Your task to perform on an android device: Open my contact list Image 0: 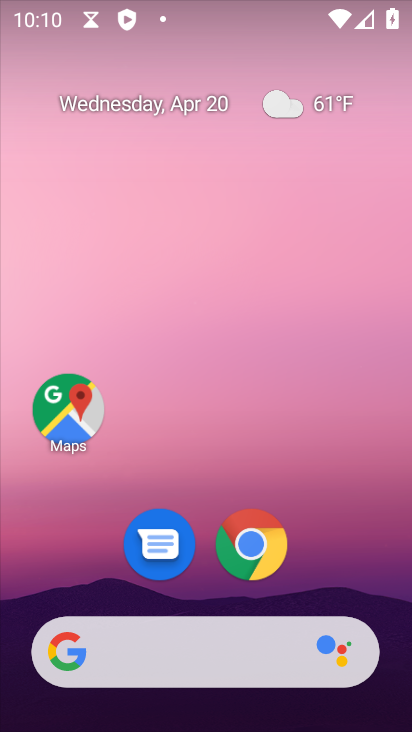
Step 0: drag from (182, 662) to (314, 110)
Your task to perform on an android device: Open my contact list Image 1: 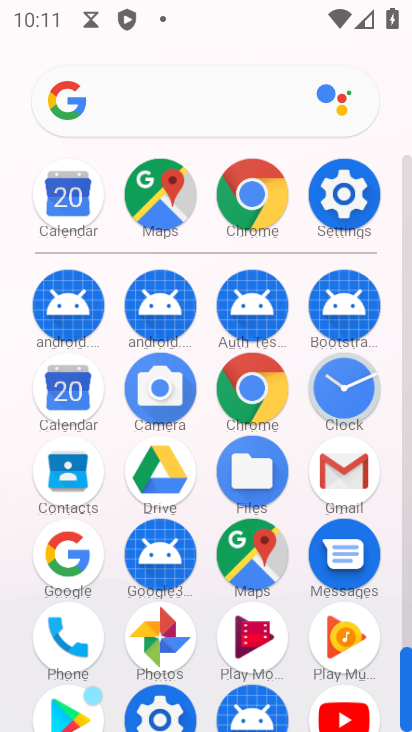
Step 1: click (71, 477)
Your task to perform on an android device: Open my contact list Image 2: 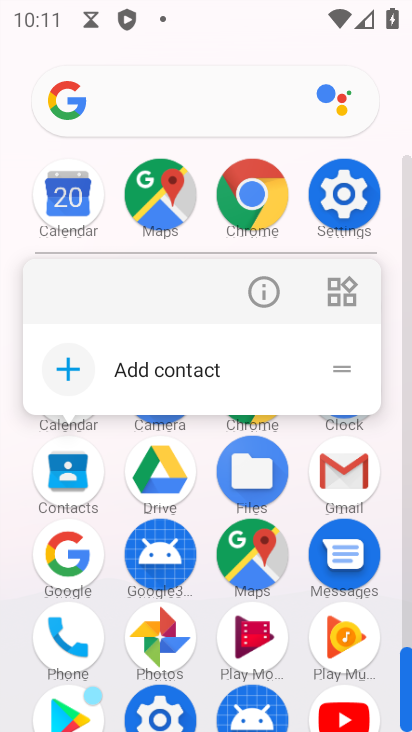
Step 2: click (65, 476)
Your task to perform on an android device: Open my contact list Image 3: 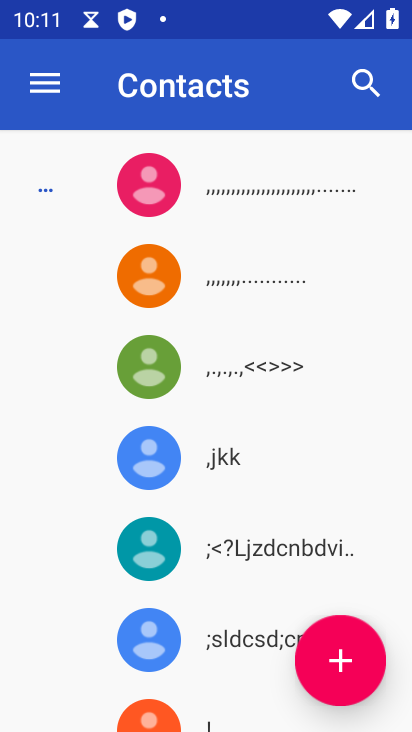
Step 3: task complete